Your task to perform on an android device: Open Google Chrome Image 0: 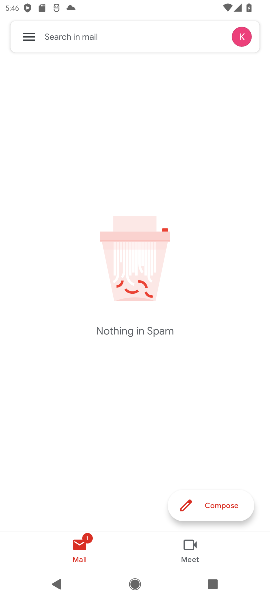
Step 0: press home button
Your task to perform on an android device: Open Google Chrome Image 1: 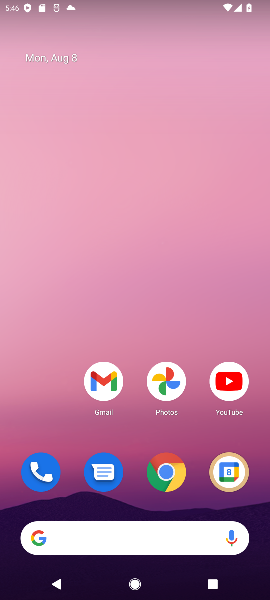
Step 1: click (171, 471)
Your task to perform on an android device: Open Google Chrome Image 2: 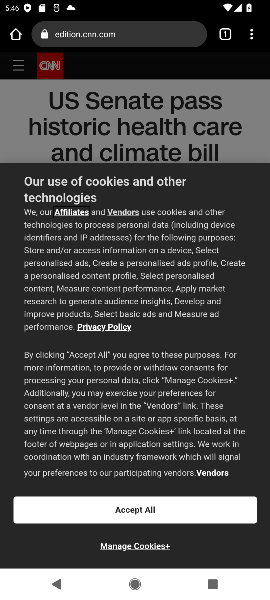
Step 2: click (223, 30)
Your task to perform on an android device: Open Google Chrome Image 3: 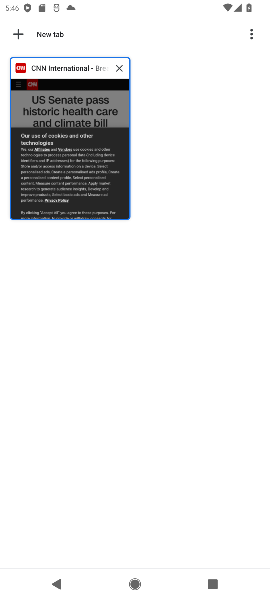
Step 3: click (18, 35)
Your task to perform on an android device: Open Google Chrome Image 4: 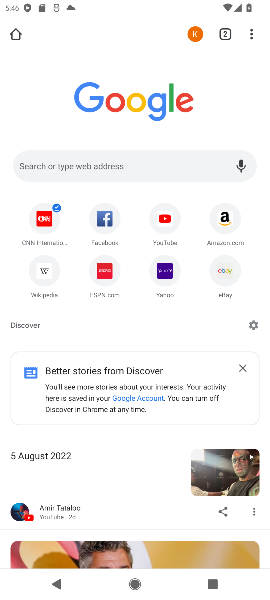
Step 4: task complete